Your task to perform on an android device: turn notification dots off Image 0: 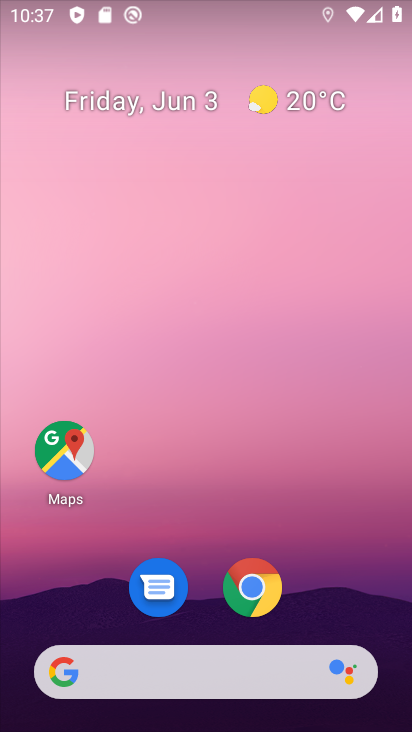
Step 0: drag from (325, 540) to (97, 44)
Your task to perform on an android device: turn notification dots off Image 1: 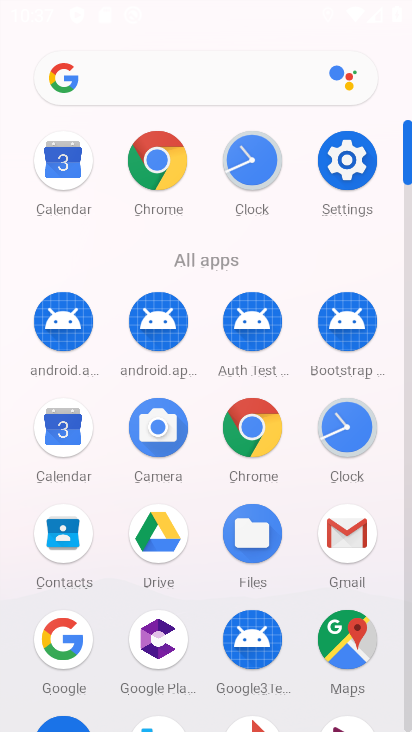
Step 1: click (354, 192)
Your task to perform on an android device: turn notification dots off Image 2: 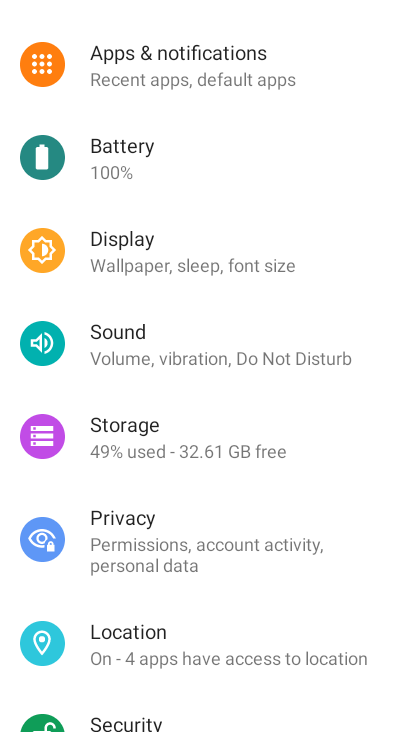
Step 2: click (231, 84)
Your task to perform on an android device: turn notification dots off Image 3: 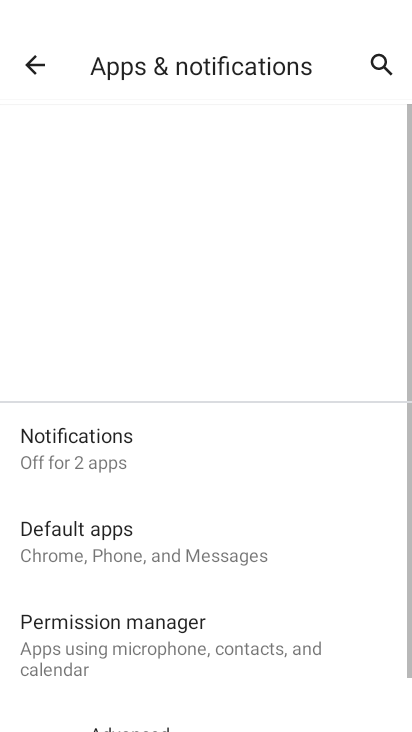
Step 3: click (168, 446)
Your task to perform on an android device: turn notification dots off Image 4: 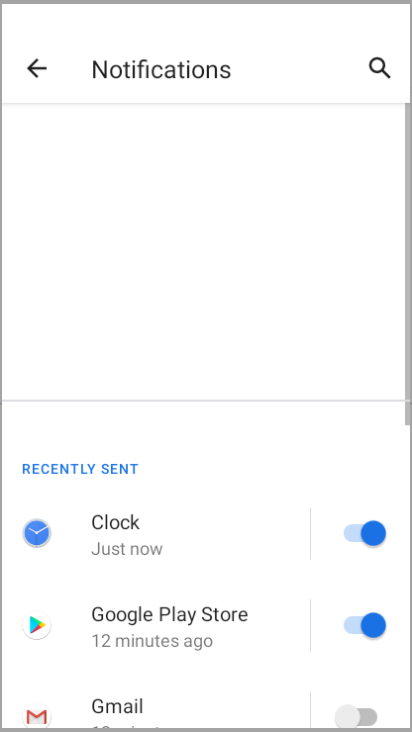
Step 4: drag from (252, 636) to (244, 77)
Your task to perform on an android device: turn notification dots off Image 5: 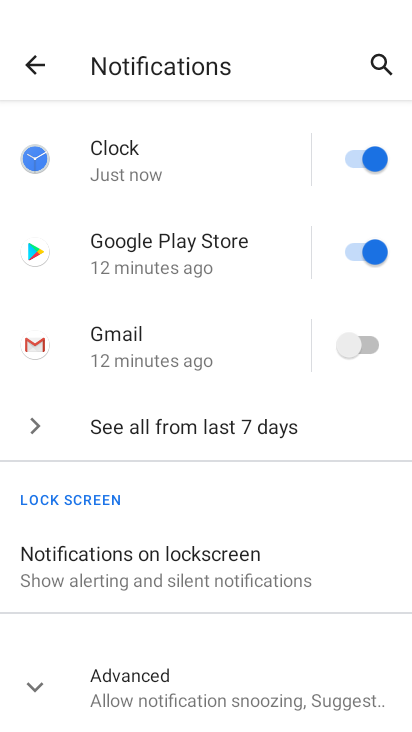
Step 5: click (199, 666)
Your task to perform on an android device: turn notification dots off Image 6: 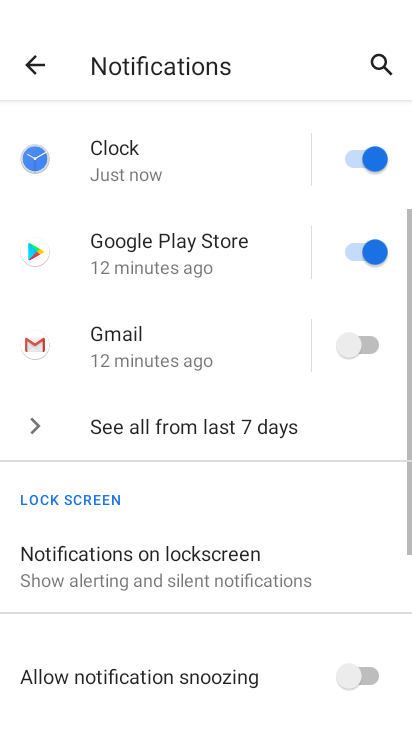
Step 6: drag from (224, 665) to (232, 218)
Your task to perform on an android device: turn notification dots off Image 7: 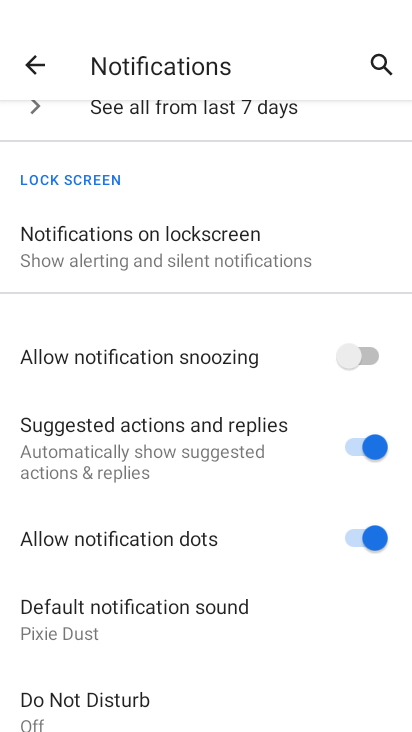
Step 7: click (379, 534)
Your task to perform on an android device: turn notification dots off Image 8: 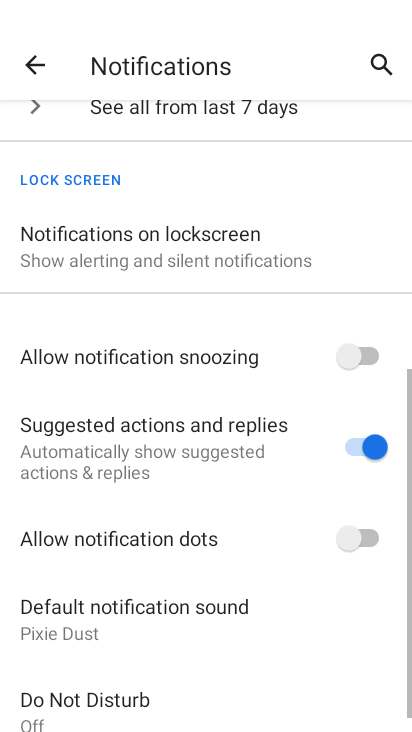
Step 8: task complete